Your task to perform on an android device: turn pop-ups off in chrome Image 0: 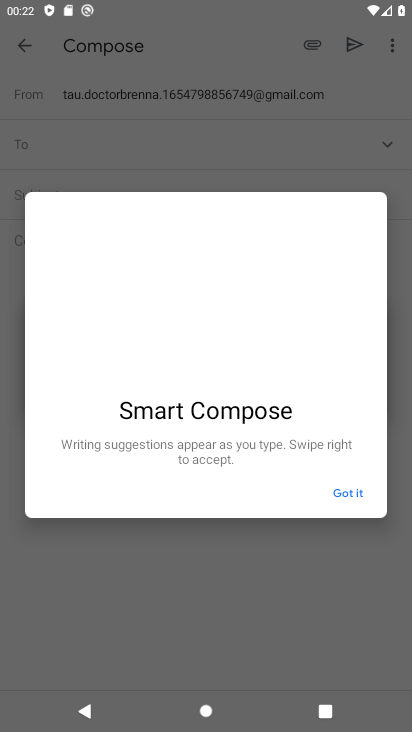
Step 0: click (345, 488)
Your task to perform on an android device: turn pop-ups off in chrome Image 1: 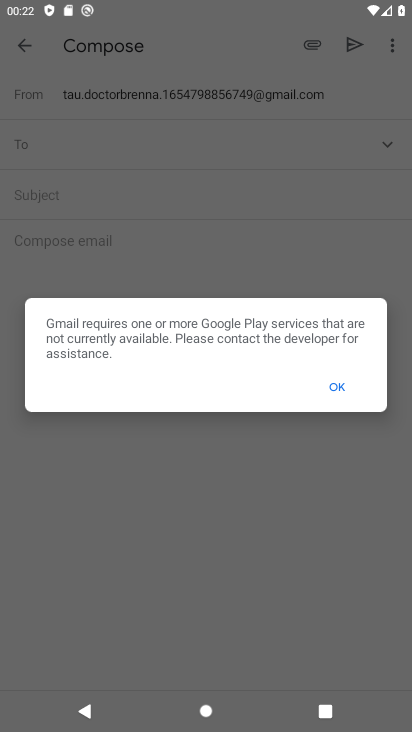
Step 1: click (339, 380)
Your task to perform on an android device: turn pop-ups off in chrome Image 2: 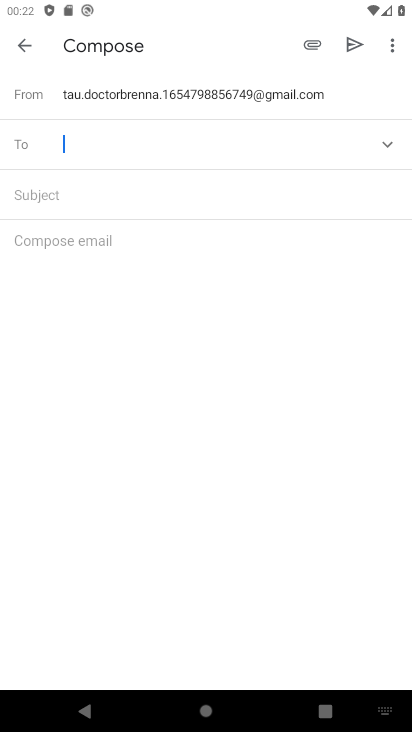
Step 2: press back button
Your task to perform on an android device: turn pop-ups off in chrome Image 3: 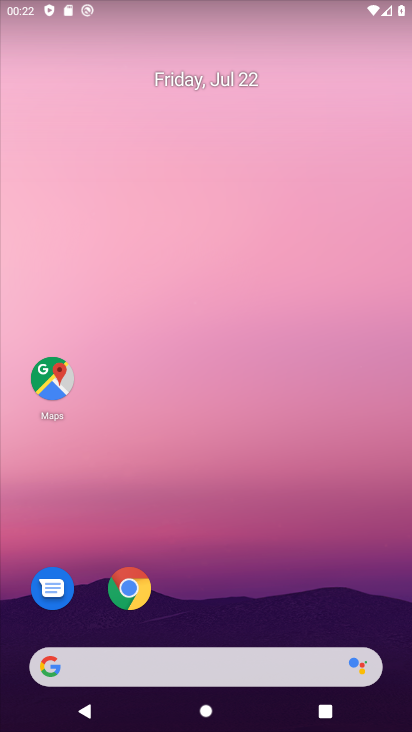
Step 3: click (141, 587)
Your task to perform on an android device: turn pop-ups off in chrome Image 4: 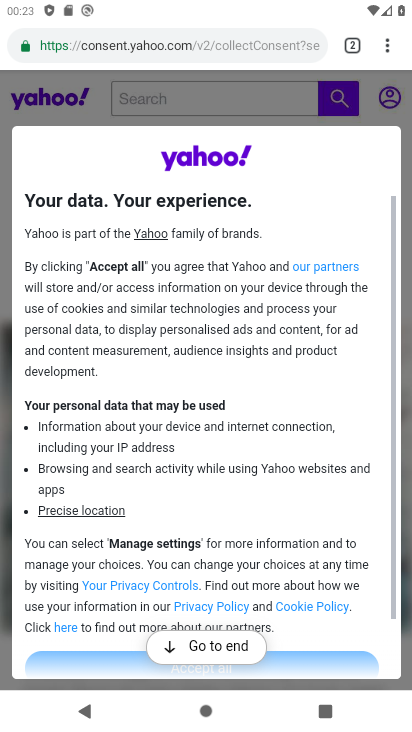
Step 4: drag from (389, 57) to (244, 545)
Your task to perform on an android device: turn pop-ups off in chrome Image 5: 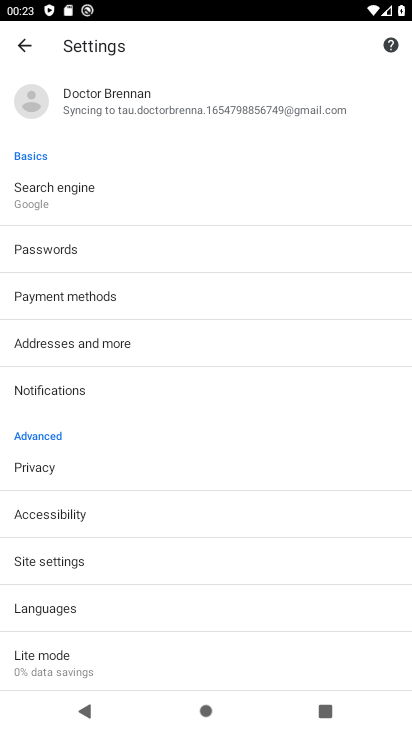
Step 5: click (46, 546)
Your task to perform on an android device: turn pop-ups off in chrome Image 6: 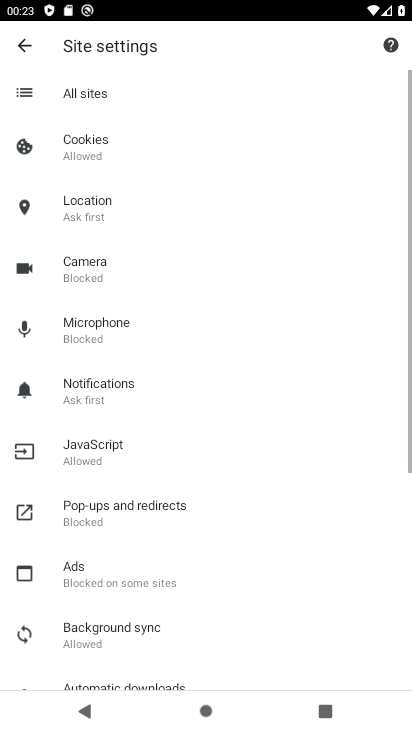
Step 6: click (90, 520)
Your task to perform on an android device: turn pop-ups off in chrome Image 7: 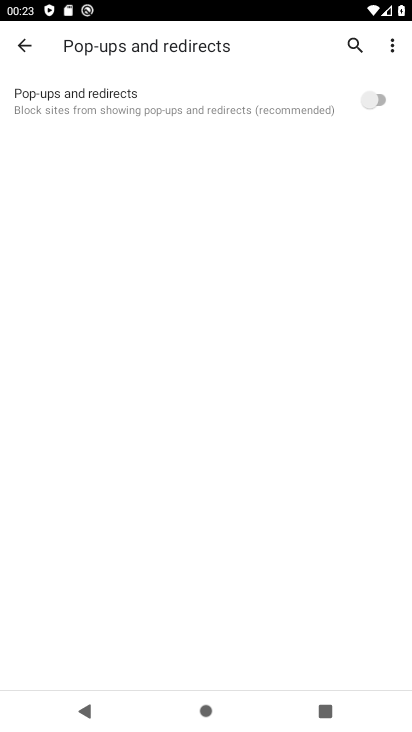
Step 7: task complete